Your task to perform on an android device: turn off picture-in-picture Image 0: 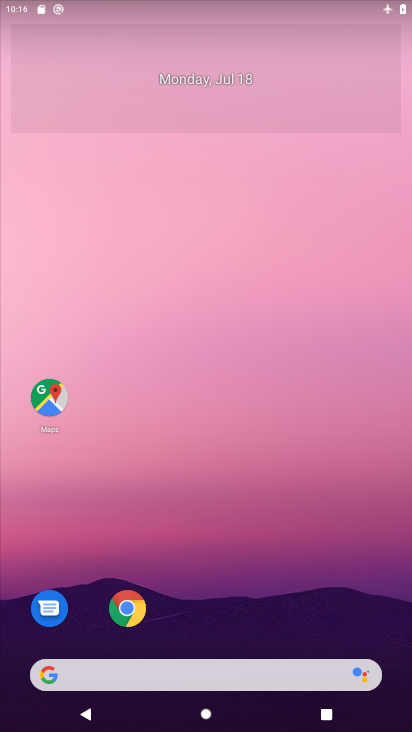
Step 0: drag from (222, 642) to (200, 95)
Your task to perform on an android device: turn off picture-in-picture Image 1: 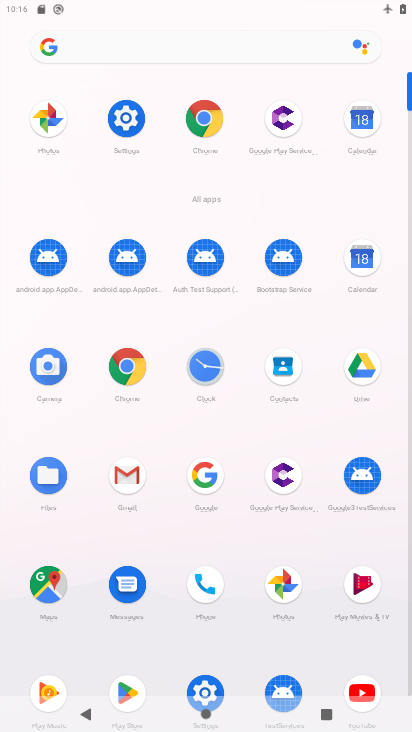
Step 1: click (143, 117)
Your task to perform on an android device: turn off picture-in-picture Image 2: 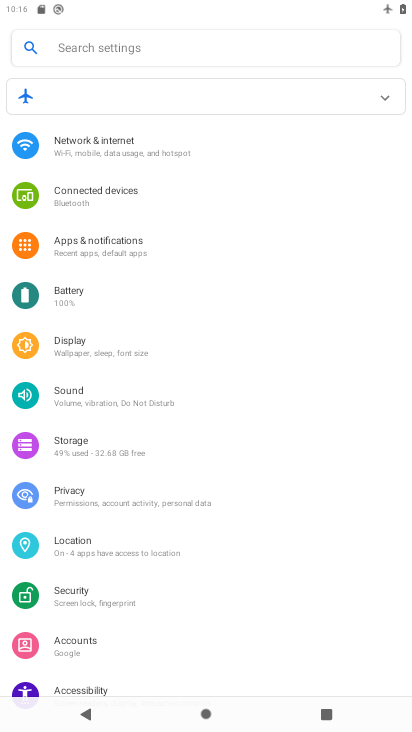
Step 2: click (95, 252)
Your task to perform on an android device: turn off picture-in-picture Image 3: 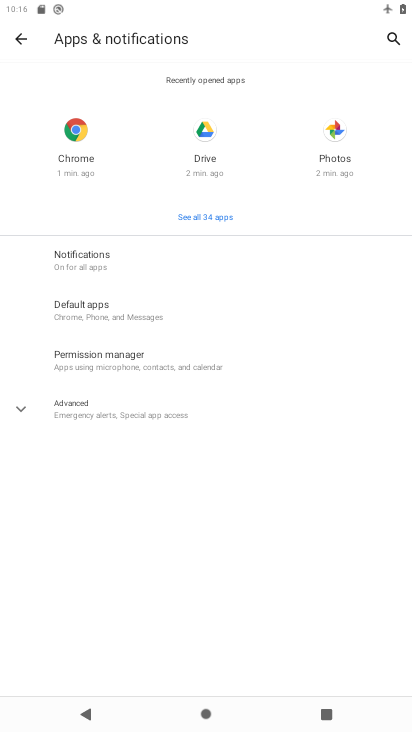
Step 3: click (103, 416)
Your task to perform on an android device: turn off picture-in-picture Image 4: 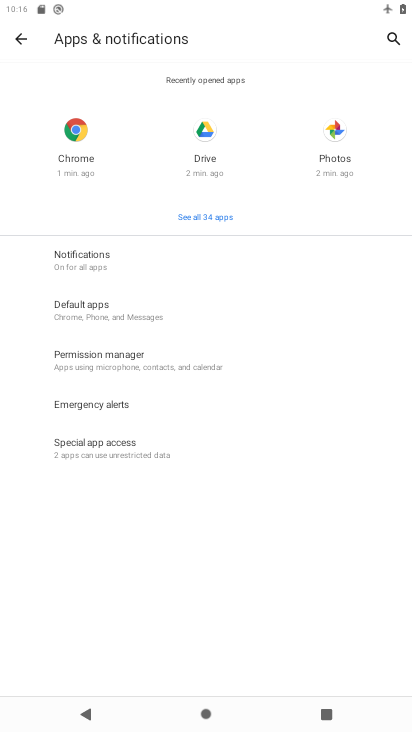
Step 4: click (107, 442)
Your task to perform on an android device: turn off picture-in-picture Image 5: 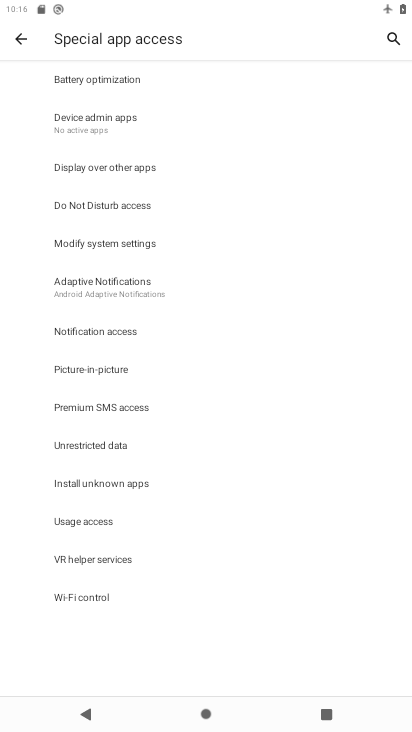
Step 5: click (94, 362)
Your task to perform on an android device: turn off picture-in-picture Image 6: 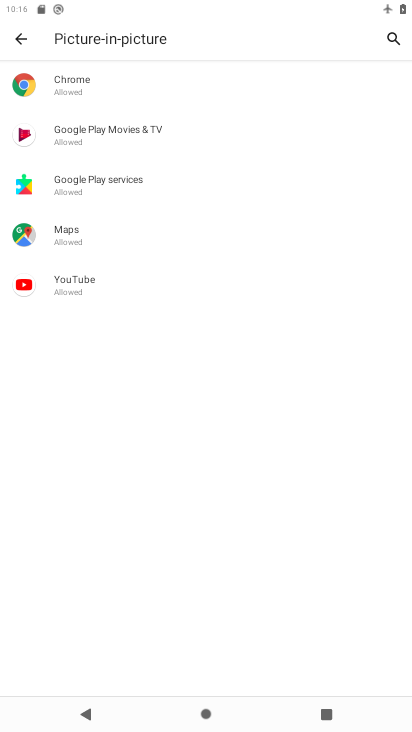
Step 6: task complete